Your task to perform on an android device: turn vacation reply on in the gmail app Image 0: 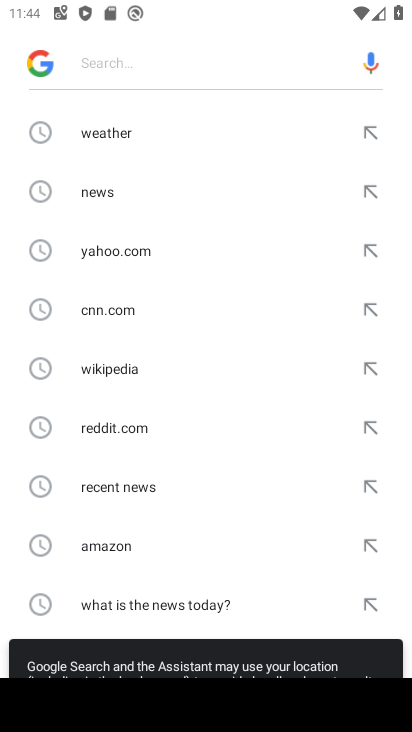
Step 0: press home button
Your task to perform on an android device: turn vacation reply on in the gmail app Image 1: 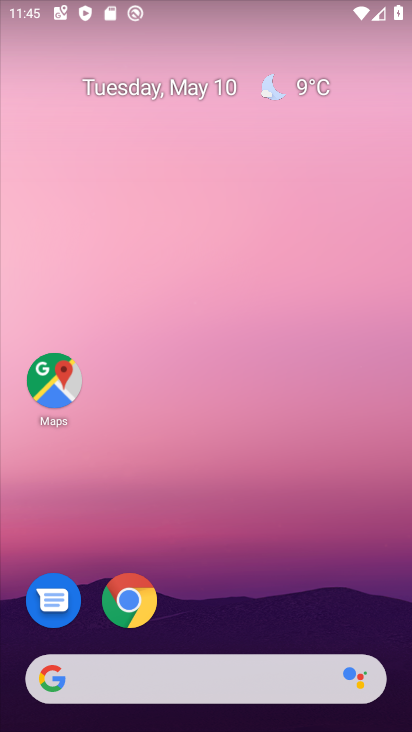
Step 1: drag from (194, 720) to (379, 9)
Your task to perform on an android device: turn vacation reply on in the gmail app Image 2: 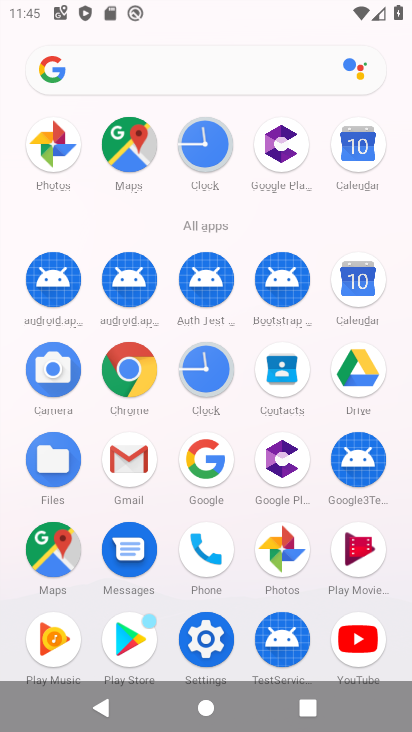
Step 2: click (123, 464)
Your task to perform on an android device: turn vacation reply on in the gmail app Image 3: 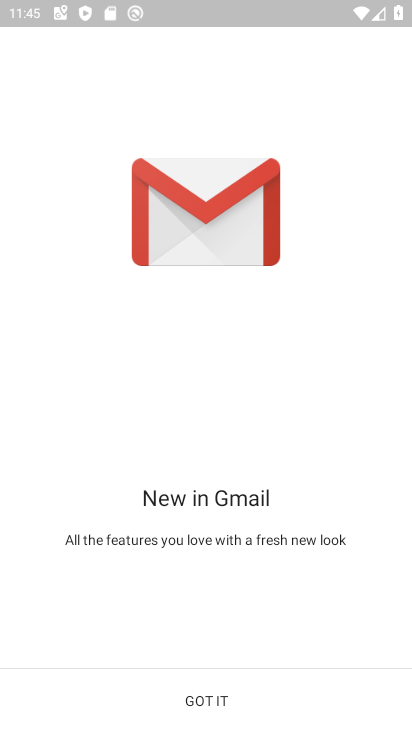
Step 3: click (222, 701)
Your task to perform on an android device: turn vacation reply on in the gmail app Image 4: 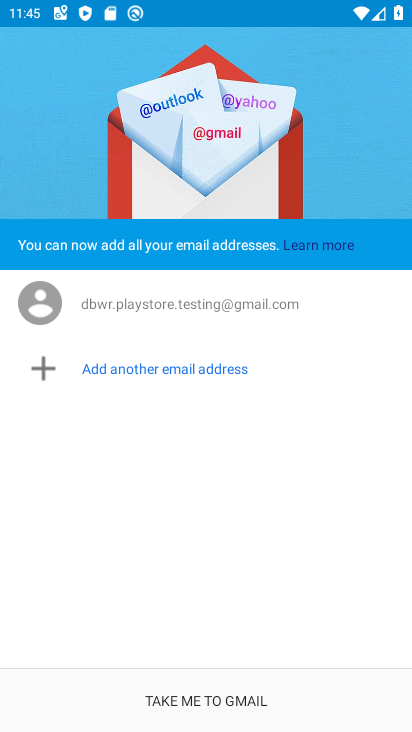
Step 4: click (222, 701)
Your task to perform on an android device: turn vacation reply on in the gmail app Image 5: 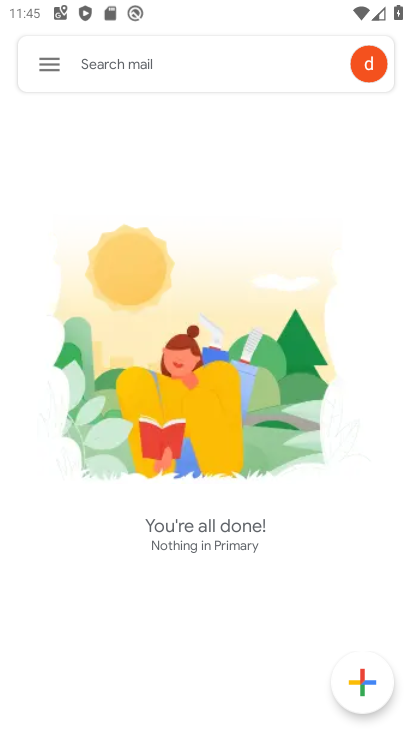
Step 5: click (45, 59)
Your task to perform on an android device: turn vacation reply on in the gmail app Image 6: 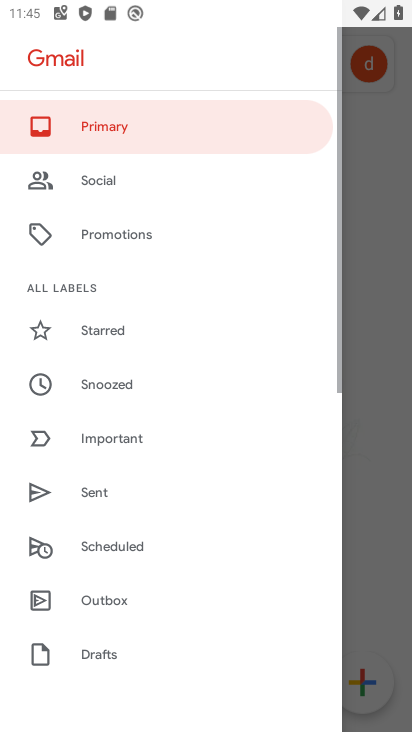
Step 6: drag from (122, 656) to (376, 30)
Your task to perform on an android device: turn vacation reply on in the gmail app Image 7: 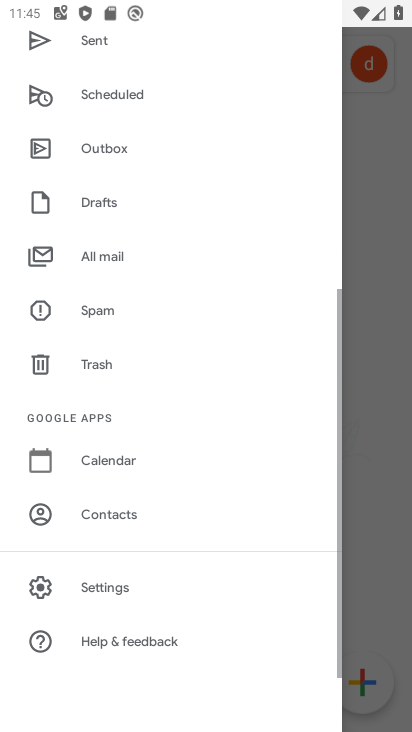
Step 7: click (122, 593)
Your task to perform on an android device: turn vacation reply on in the gmail app Image 8: 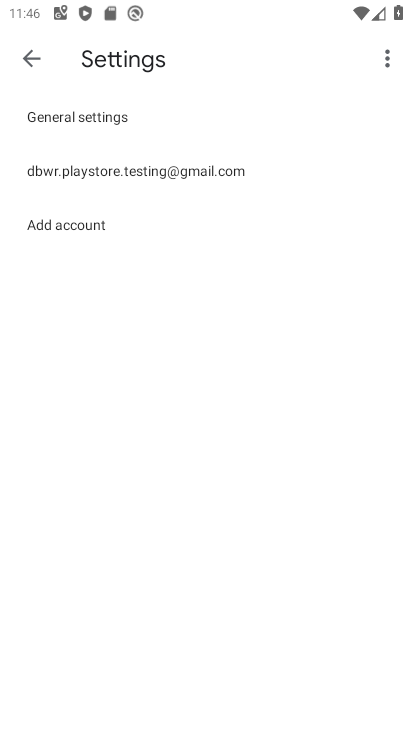
Step 8: click (107, 182)
Your task to perform on an android device: turn vacation reply on in the gmail app Image 9: 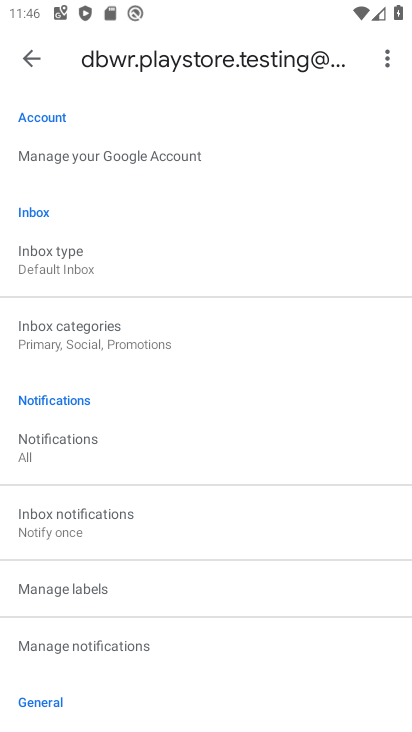
Step 9: drag from (268, 692) to (328, 86)
Your task to perform on an android device: turn vacation reply on in the gmail app Image 10: 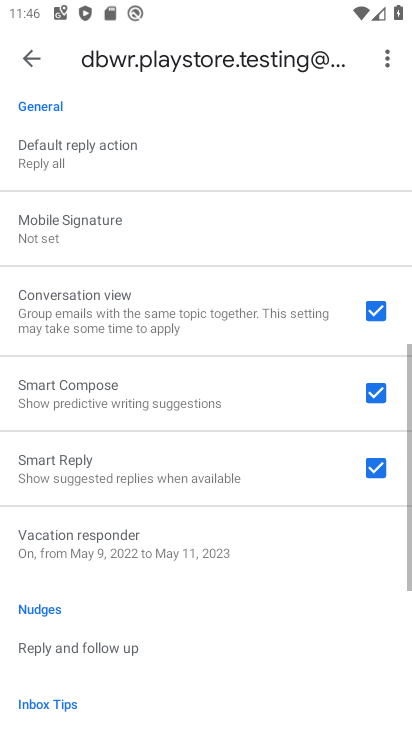
Step 10: click (154, 525)
Your task to perform on an android device: turn vacation reply on in the gmail app Image 11: 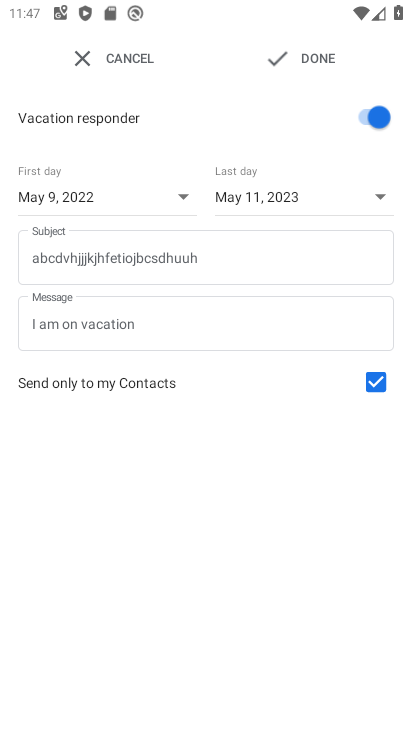
Step 11: click (270, 51)
Your task to perform on an android device: turn vacation reply on in the gmail app Image 12: 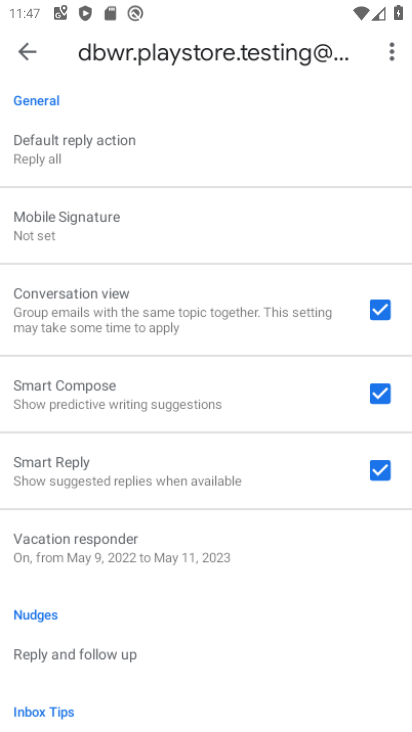
Step 12: task complete